Your task to perform on an android device: install app "Grab" Image 0: 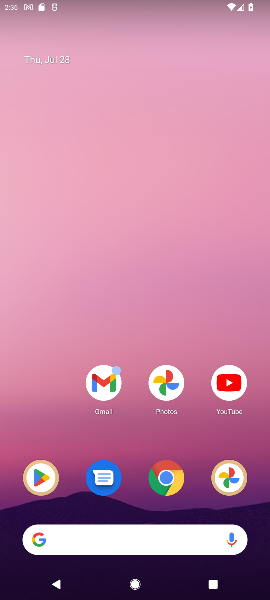
Step 0: press home button
Your task to perform on an android device: install app "Grab" Image 1: 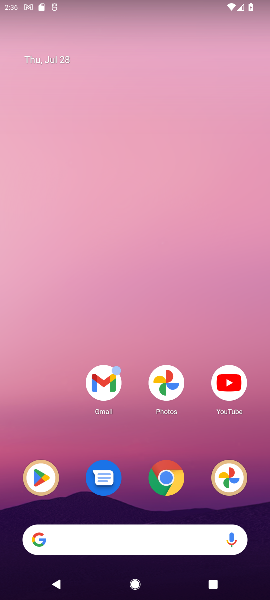
Step 1: drag from (60, 423) to (65, 68)
Your task to perform on an android device: install app "Grab" Image 2: 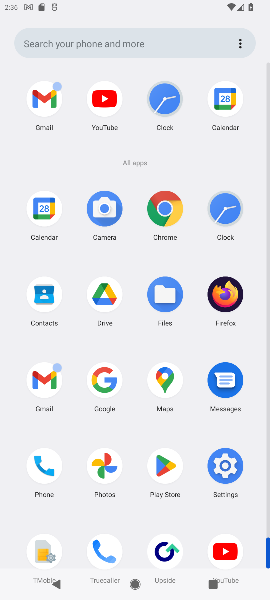
Step 2: click (175, 470)
Your task to perform on an android device: install app "Grab" Image 3: 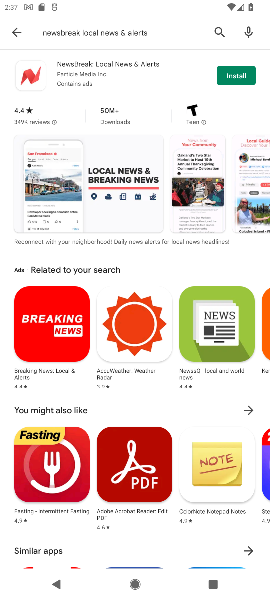
Step 3: click (22, 29)
Your task to perform on an android device: install app "Grab" Image 4: 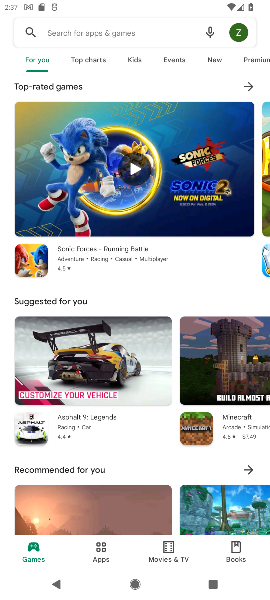
Step 4: type "Grab"
Your task to perform on an android device: install app "Grab" Image 5: 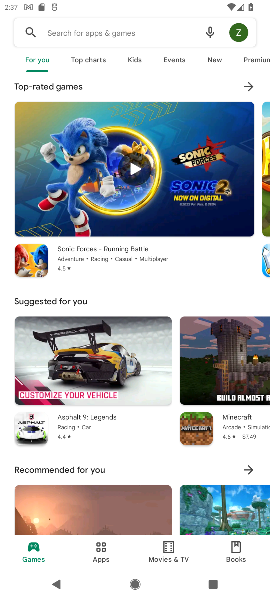
Step 5: click (108, 33)
Your task to perform on an android device: install app "Grab" Image 6: 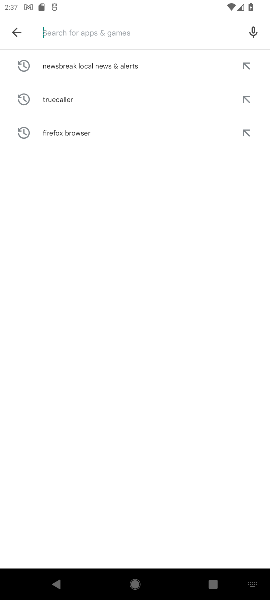
Step 6: click (76, 33)
Your task to perform on an android device: install app "Grab" Image 7: 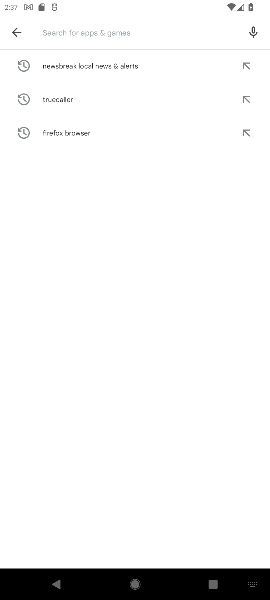
Step 7: type "Grab"
Your task to perform on an android device: install app "Grab" Image 8: 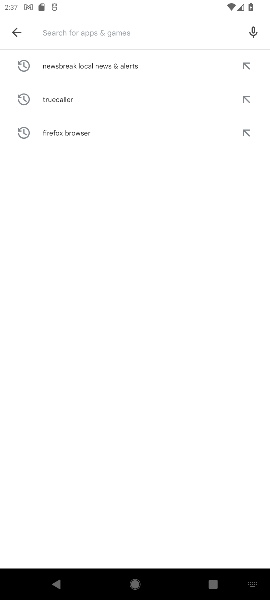
Step 8: click (73, 32)
Your task to perform on an android device: install app "Grab" Image 9: 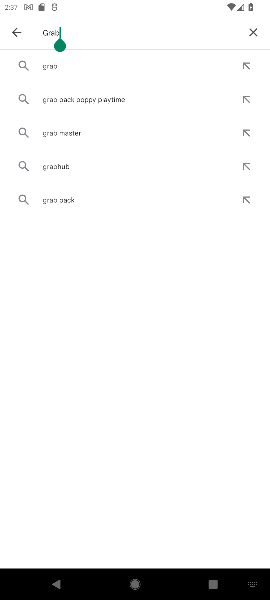
Step 9: click (52, 65)
Your task to perform on an android device: install app "Grab" Image 10: 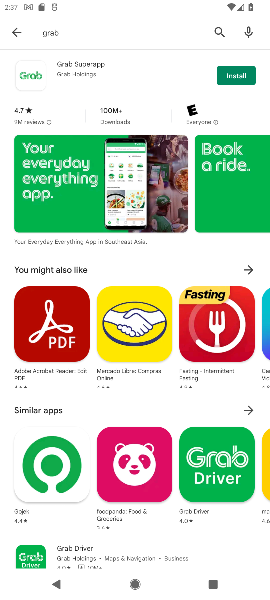
Step 10: click (234, 74)
Your task to perform on an android device: install app "Grab" Image 11: 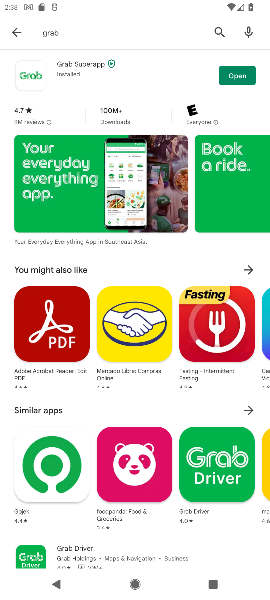
Step 11: task complete